Your task to perform on an android device: Go to ESPN.com Image 0: 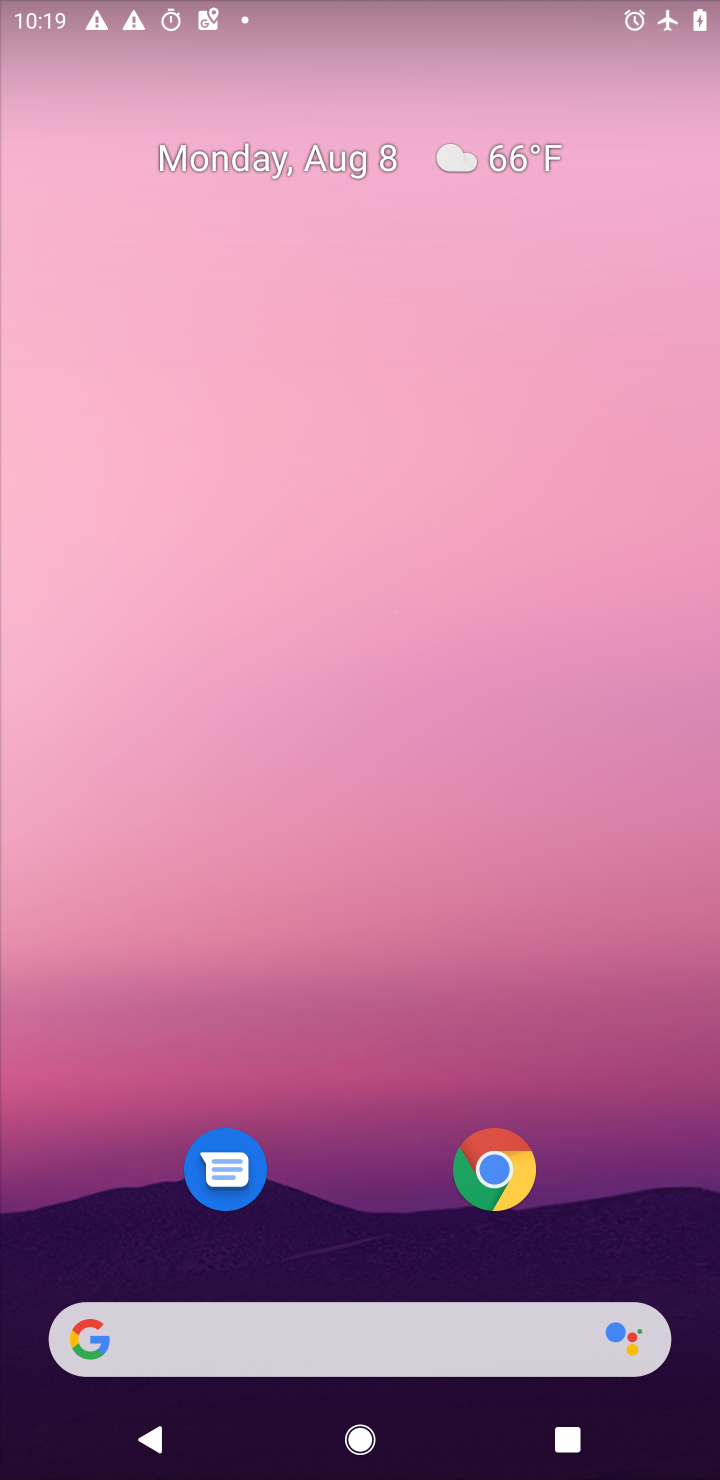
Step 0: click (506, 1166)
Your task to perform on an android device: Go to ESPN.com Image 1: 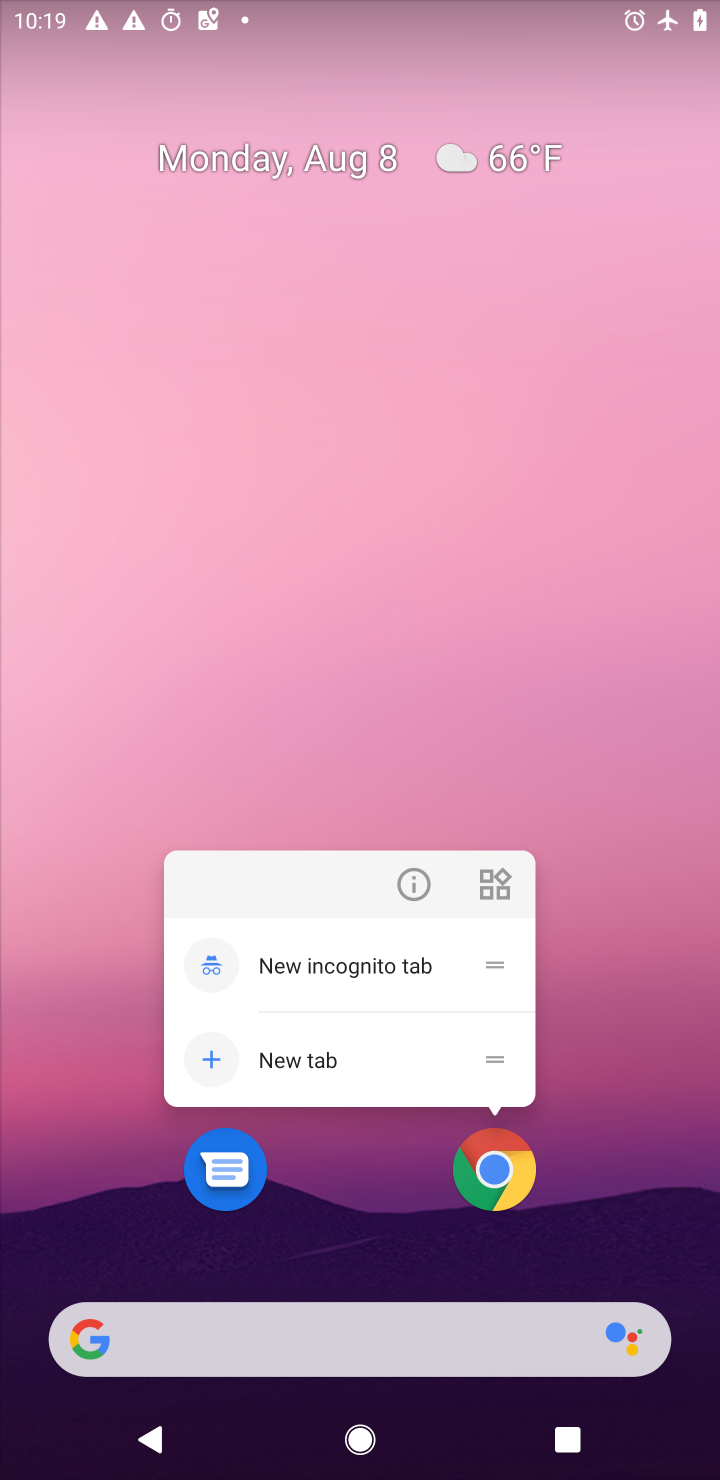
Step 1: click (504, 1178)
Your task to perform on an android device: Go to ESPN.com Image 2: 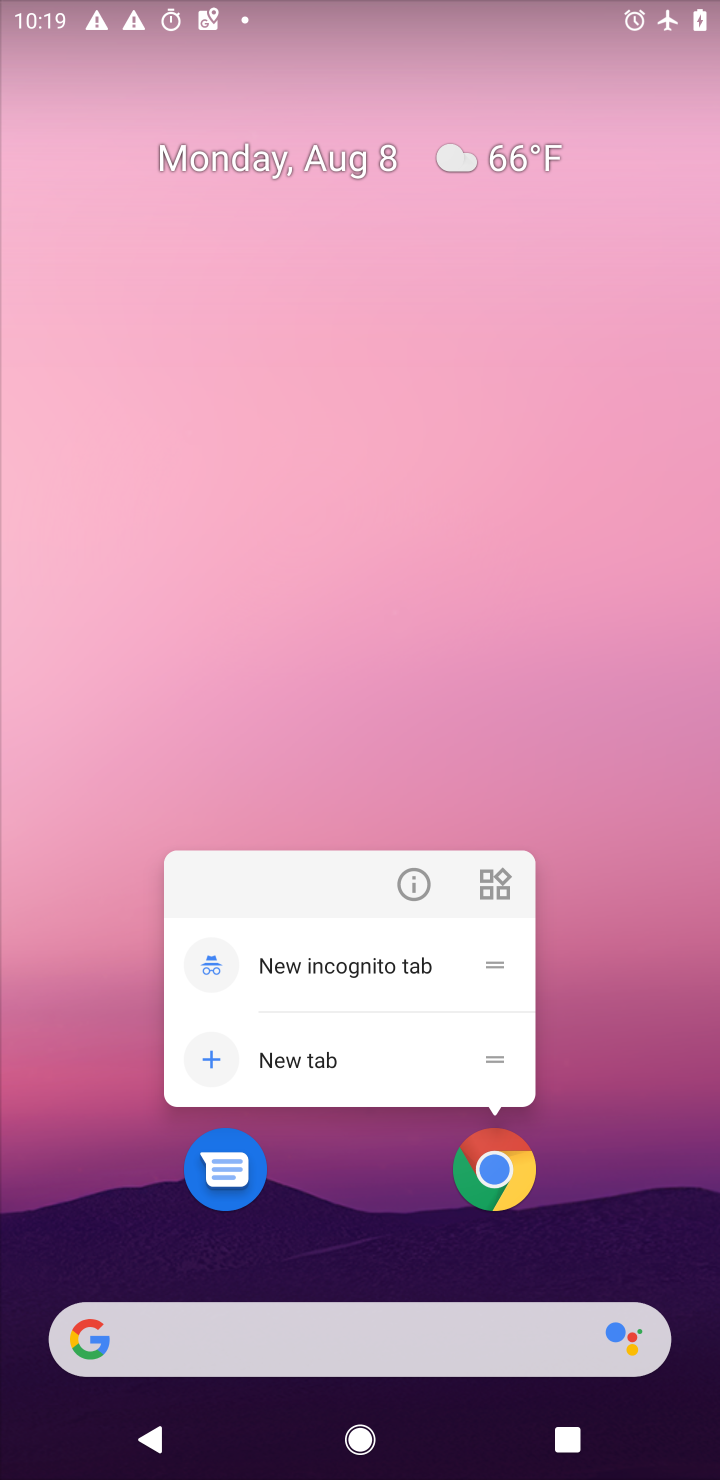
Step 2: click (488, 1187)
Your task to perform on an android device: Go to ESPN.com Image 3: 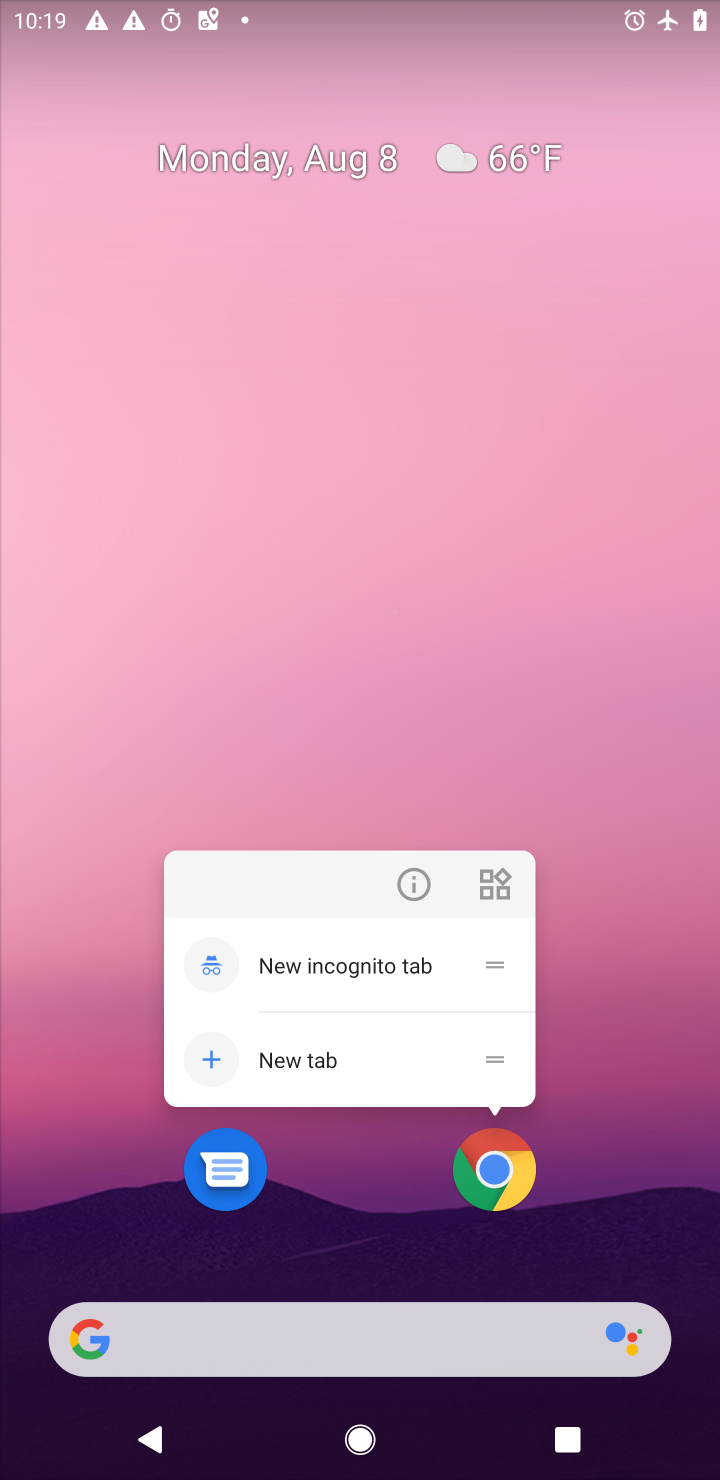
Step 3: click (488, 1187)
Your task to perform on an android device: Go to ESPN.com Image 4: 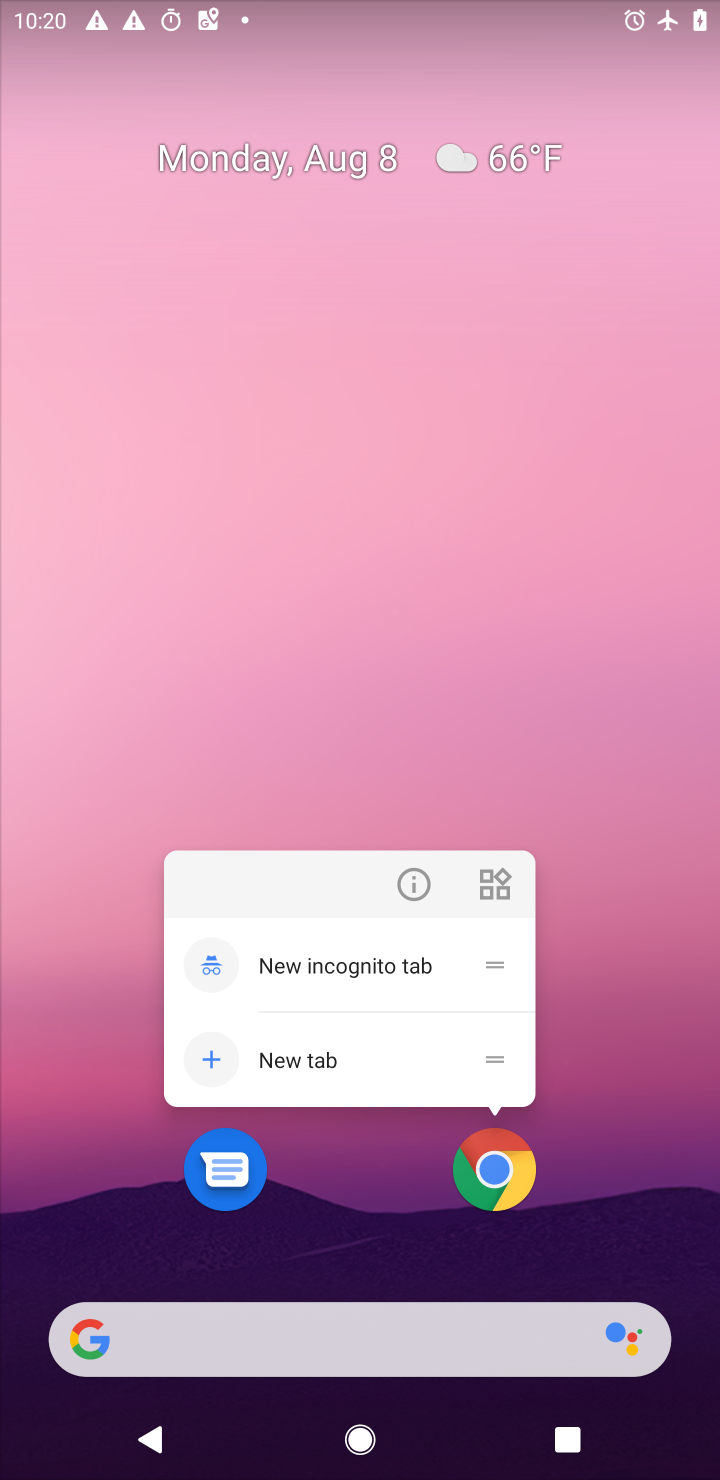
Step 4: click (525, 1159)
Your task to perform on an android device: Go to ESPN.com Image 5: 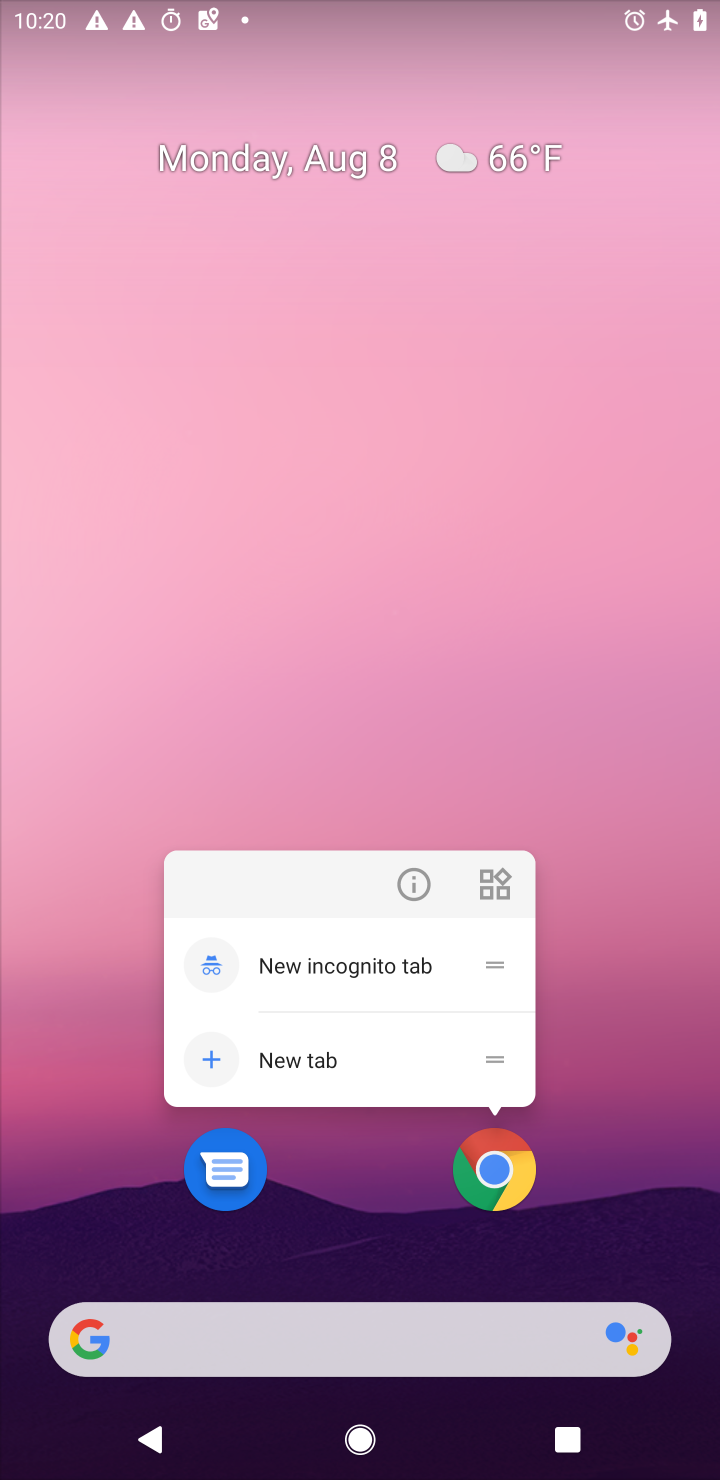
Step 5: click (489, 1170)
Your task to perform on an android device: Go to ESPN.com Image 6: 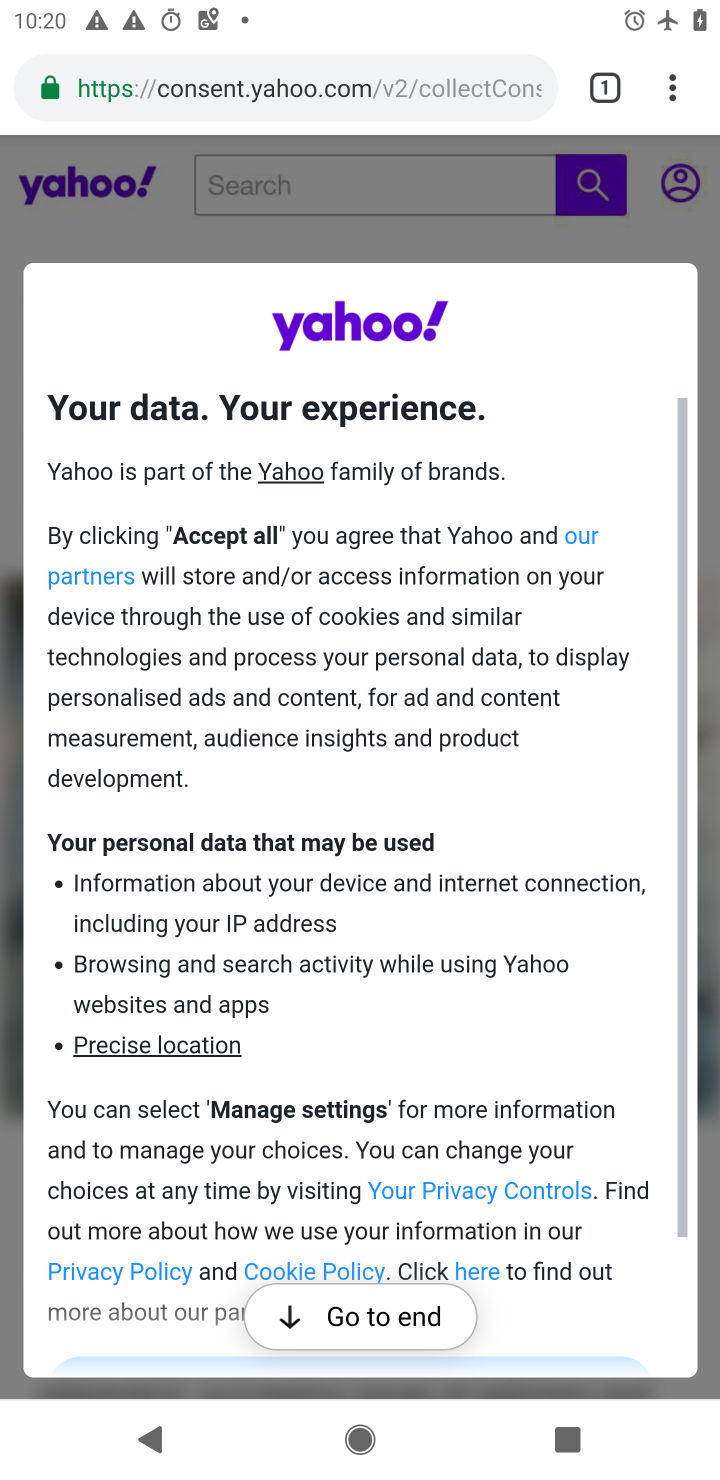
Step 6: click (605, 91)
Your task to perform on an android device: Go to ESPN.com Image 7: 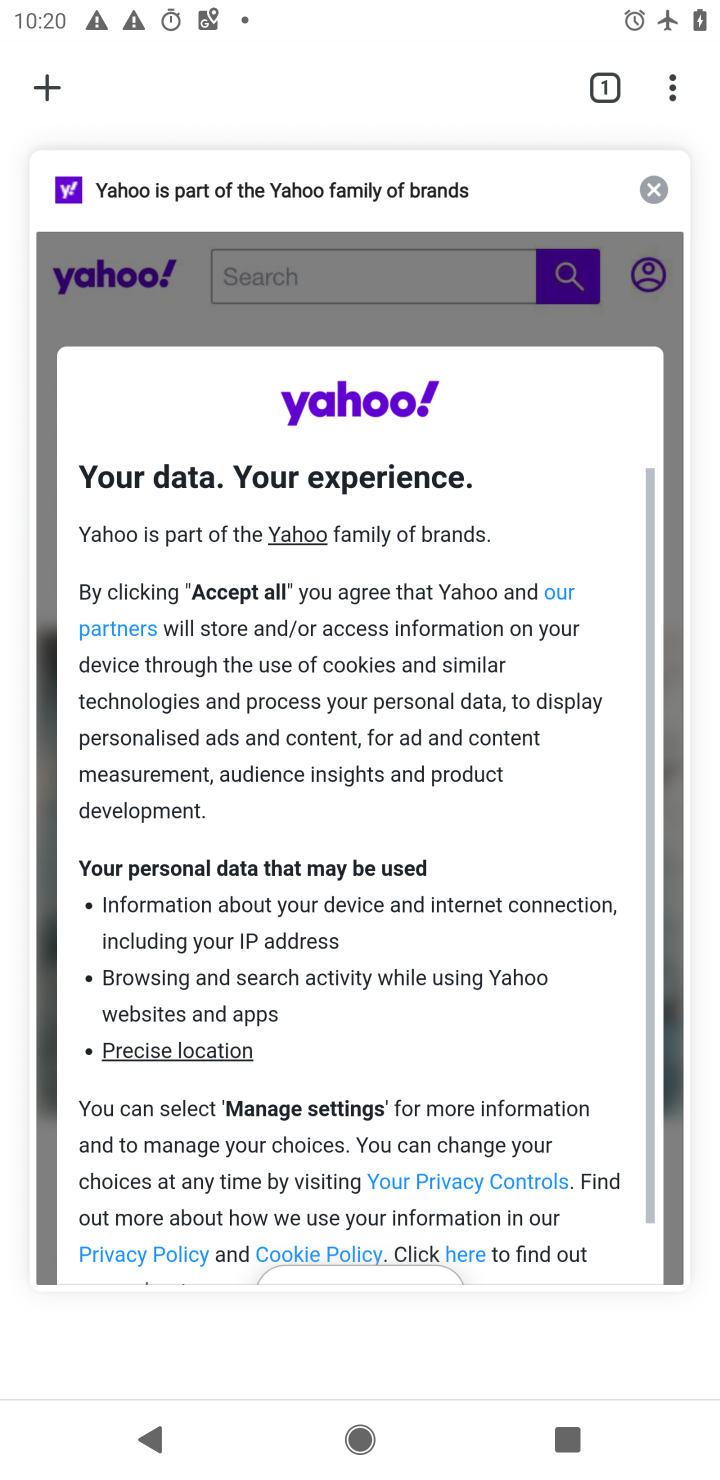
Step 7: click (50, 80)
Your task to perform on an android device: Go to ESPN.com Image 8: 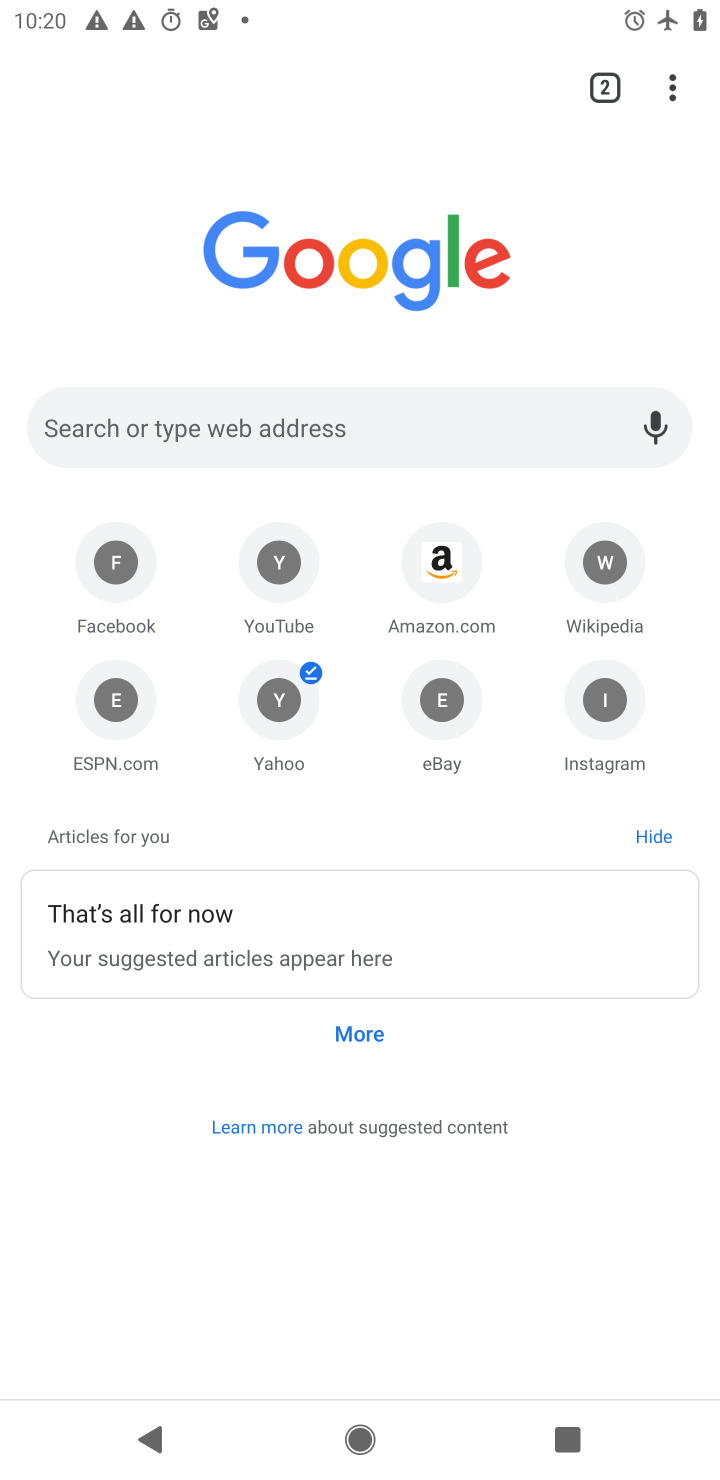
Step 8: click (121, 703)
Your task to perform on an android device: Go to ESPN.com Image 9: 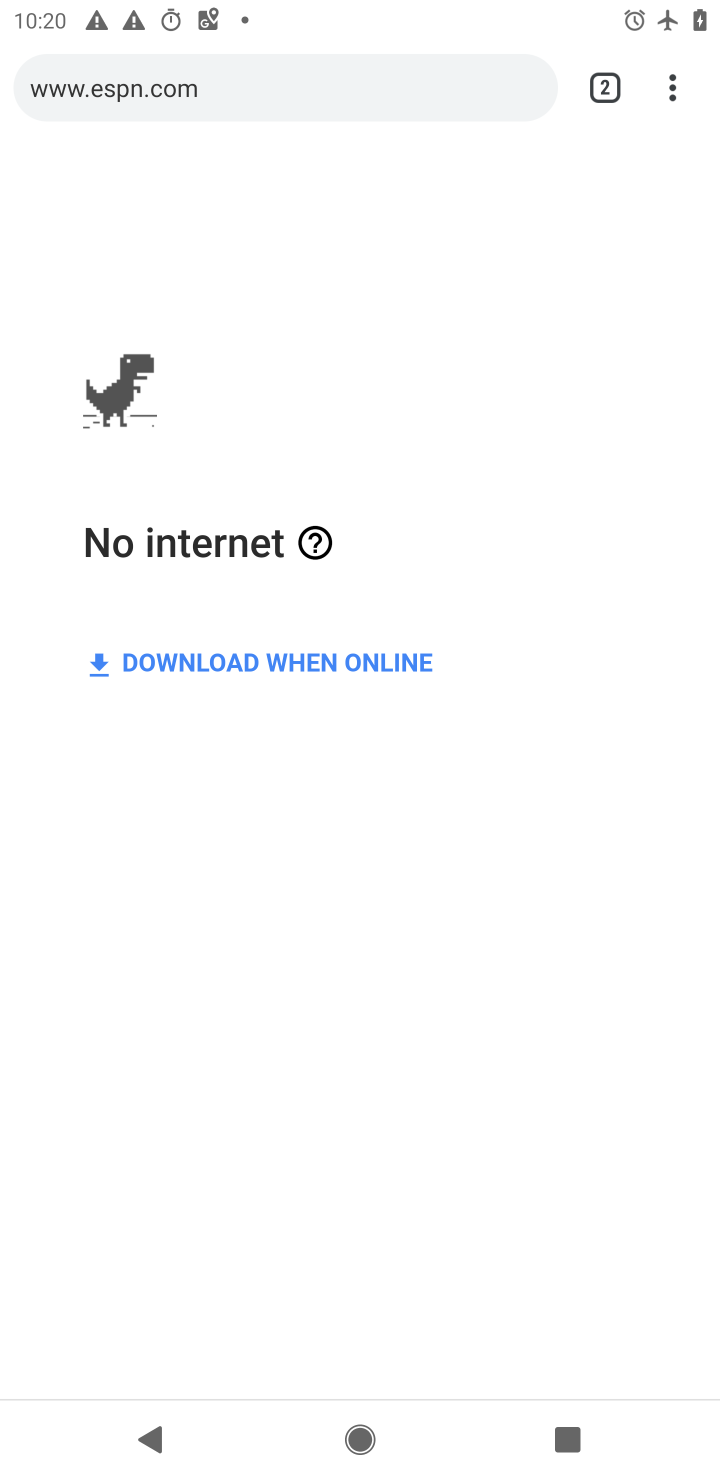
Step 9: drag from (656, 43) to (542, 1122)
Your task to perform on an android device: Go to ESPN.com Image 10: 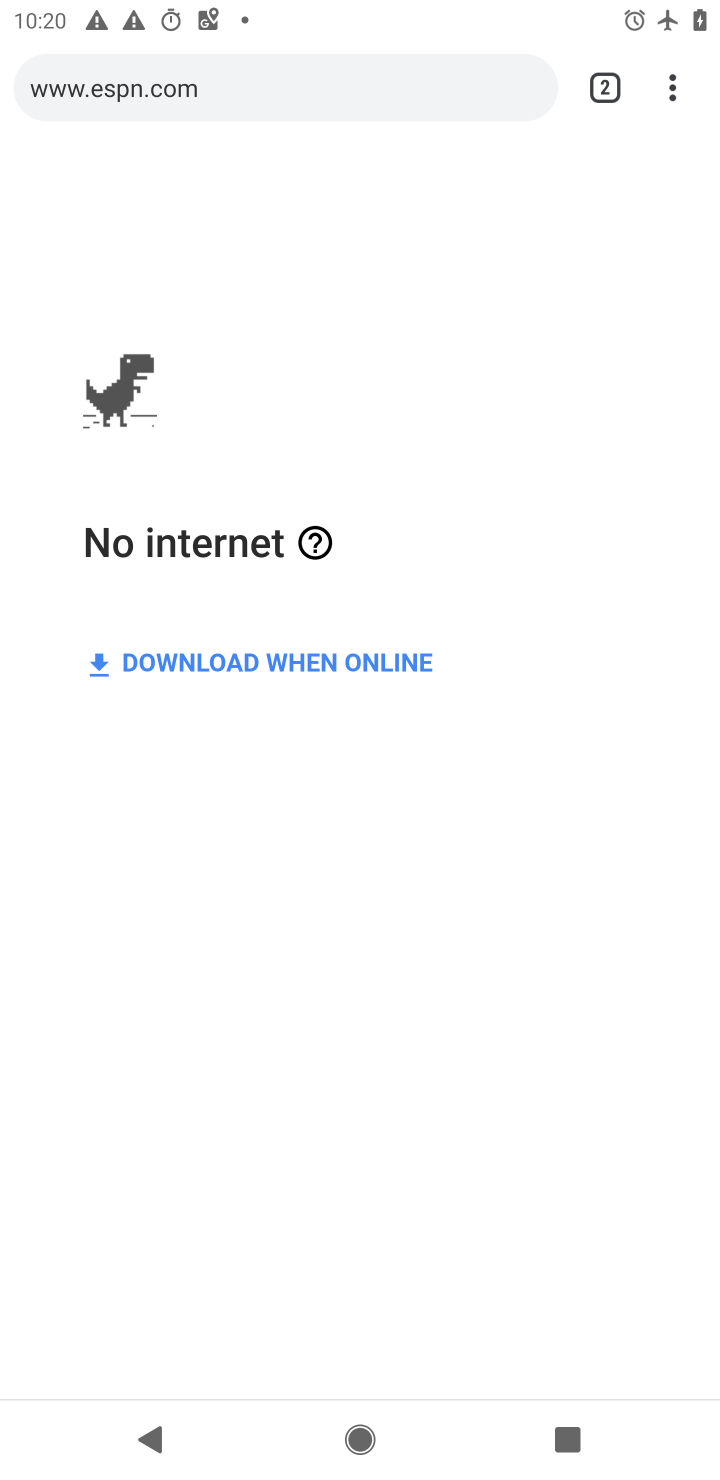
Step 10: drag from (611, 3) to (484, 1018)
Your task to perform on an android device: Go to ESPN.com Image 11: 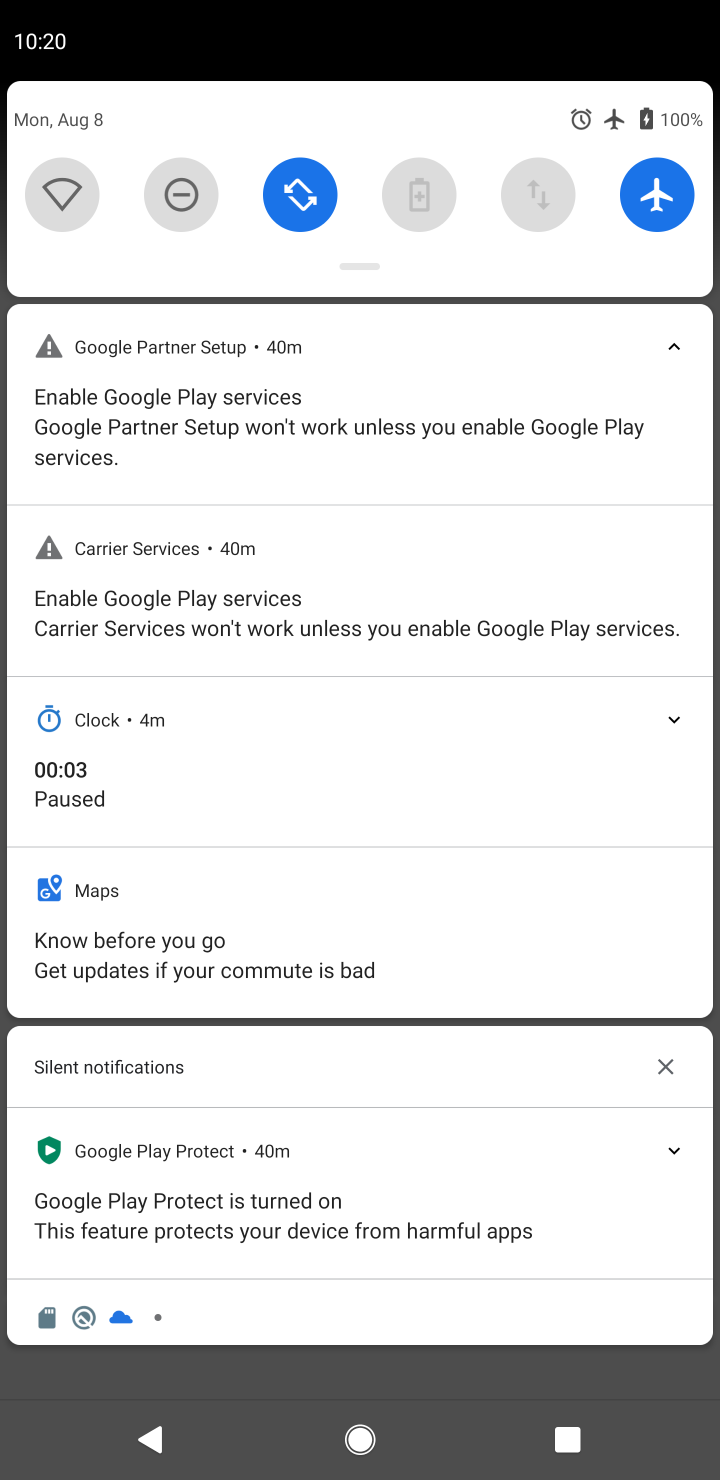
Step 11: click (640, 198)
Your task to perform on an android device: Go to ESPN.com Image 12: 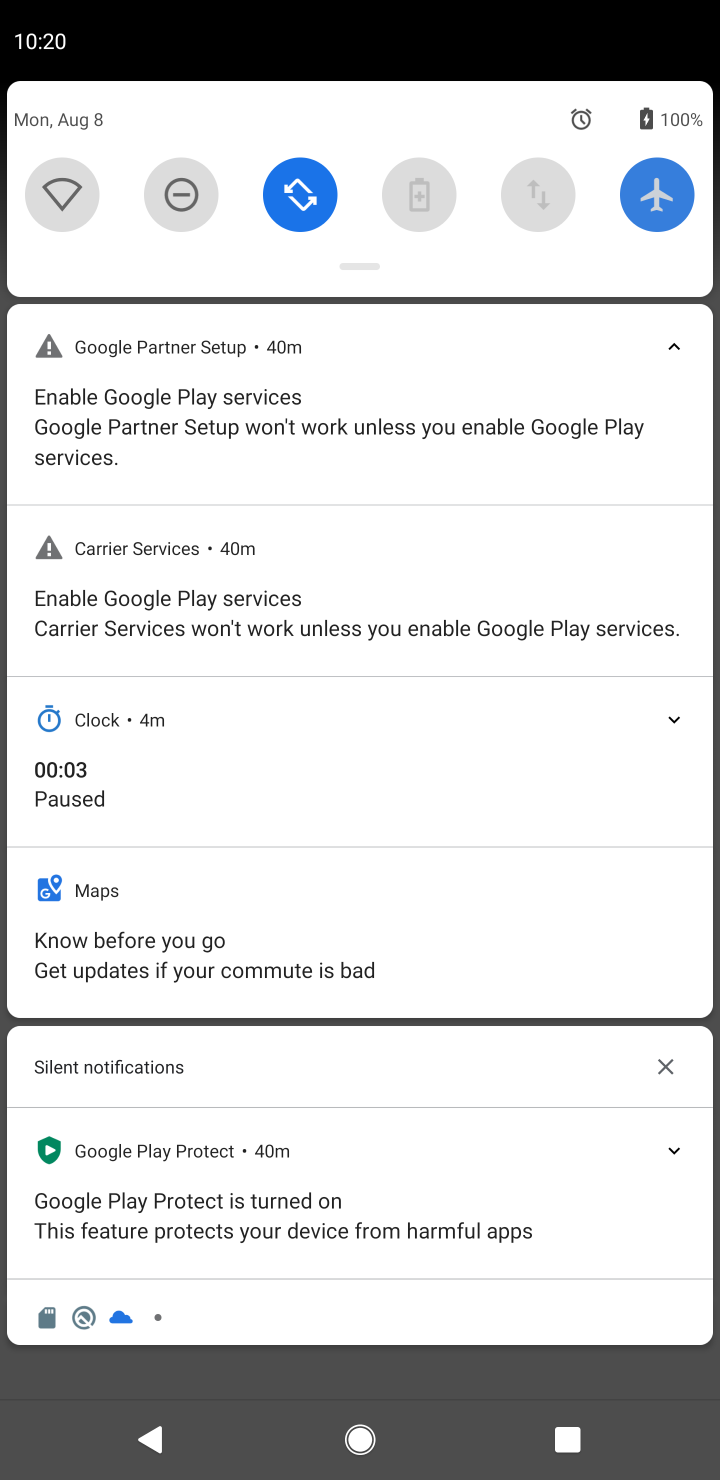
Step 12: click (283, 1384)
Your task to perform on an android device: Go to ESPN.com Image 13: 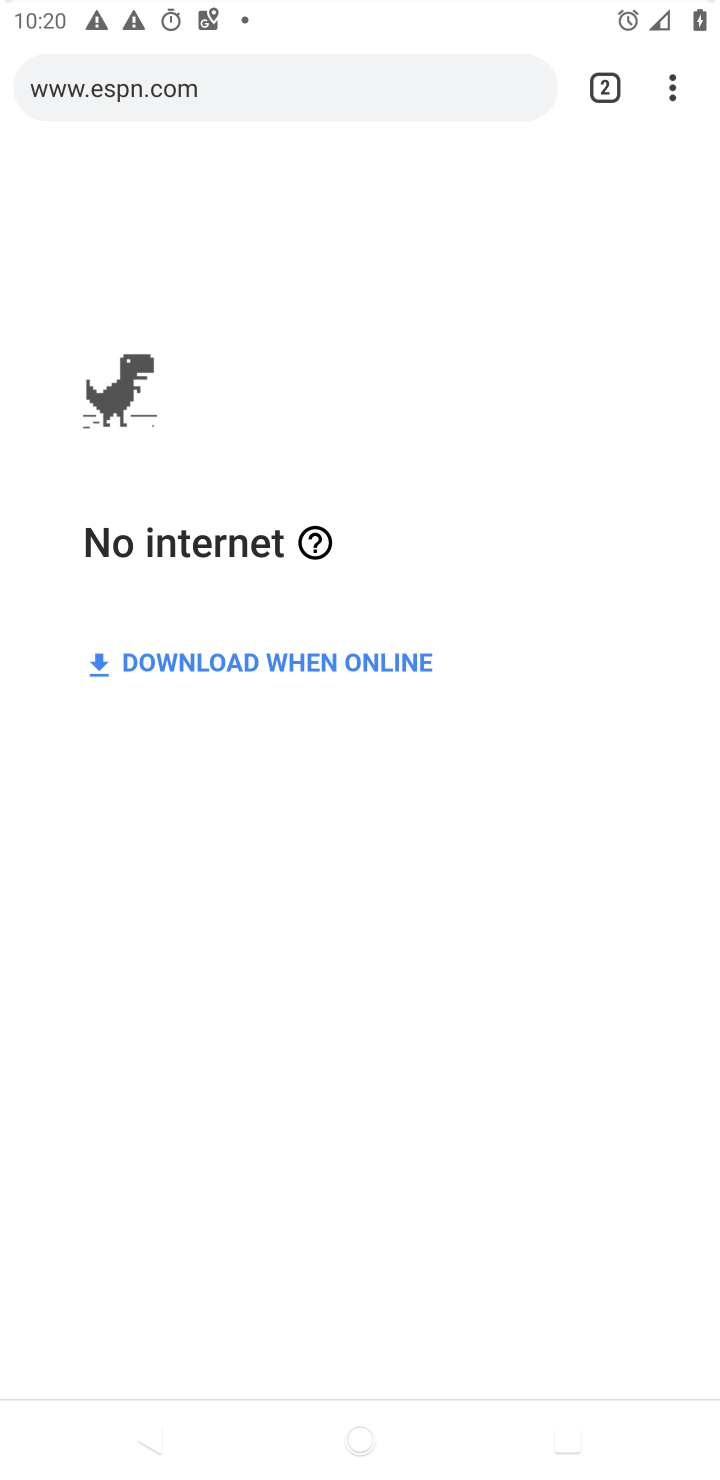
Step 13: task complete